Your task to perform on an android device: turn on wifi Image 0: 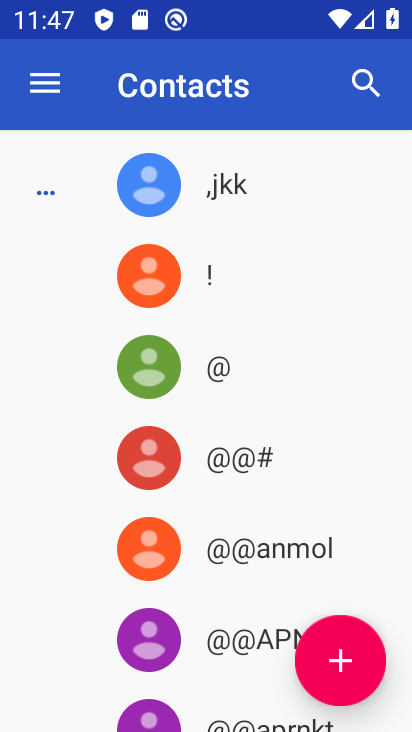
Step 0: press home button
Your task to perform on an android device: turn on wifi Image 1: 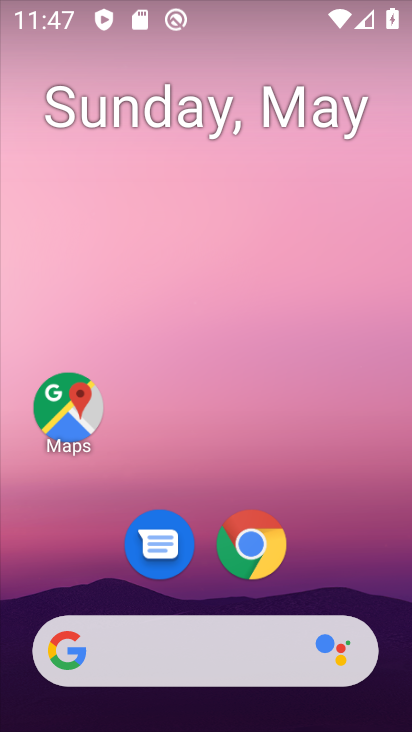
Step 1: drag from (338, 635) to (309, 41)
Your task to perform on an android device: turn on wifi Image 2: 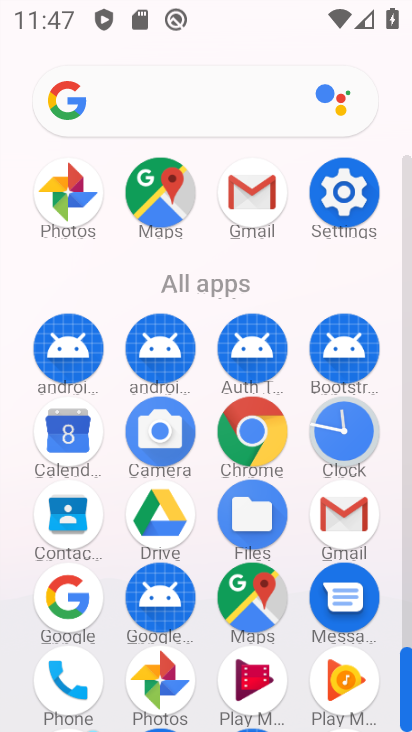
Step 2: click (346, 192)
Your task to perform on an android device: turn on wifi Image 3: 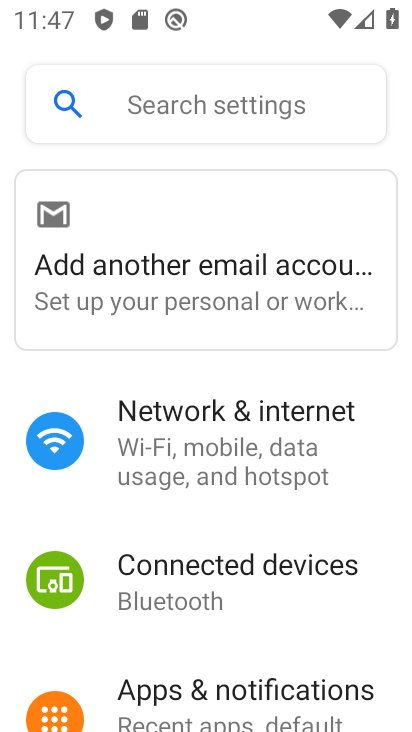
Step 3: click (262, 475)
Your task to perform on an android device: turn on wifi Image 4: 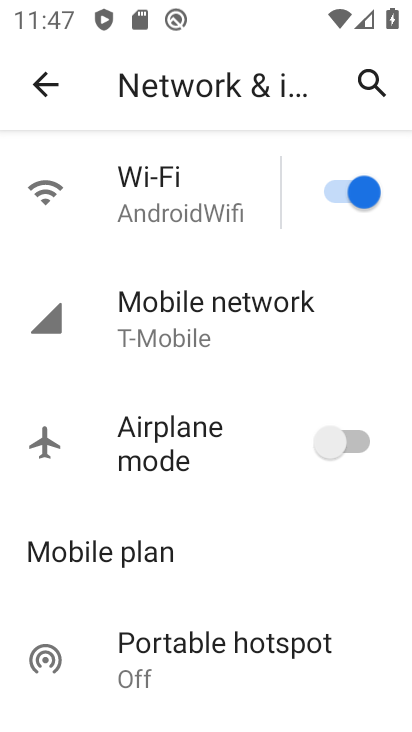
Step 4: task complete